Your task to perform on an android device: turn off priority inbox in the gmail app Image 0: 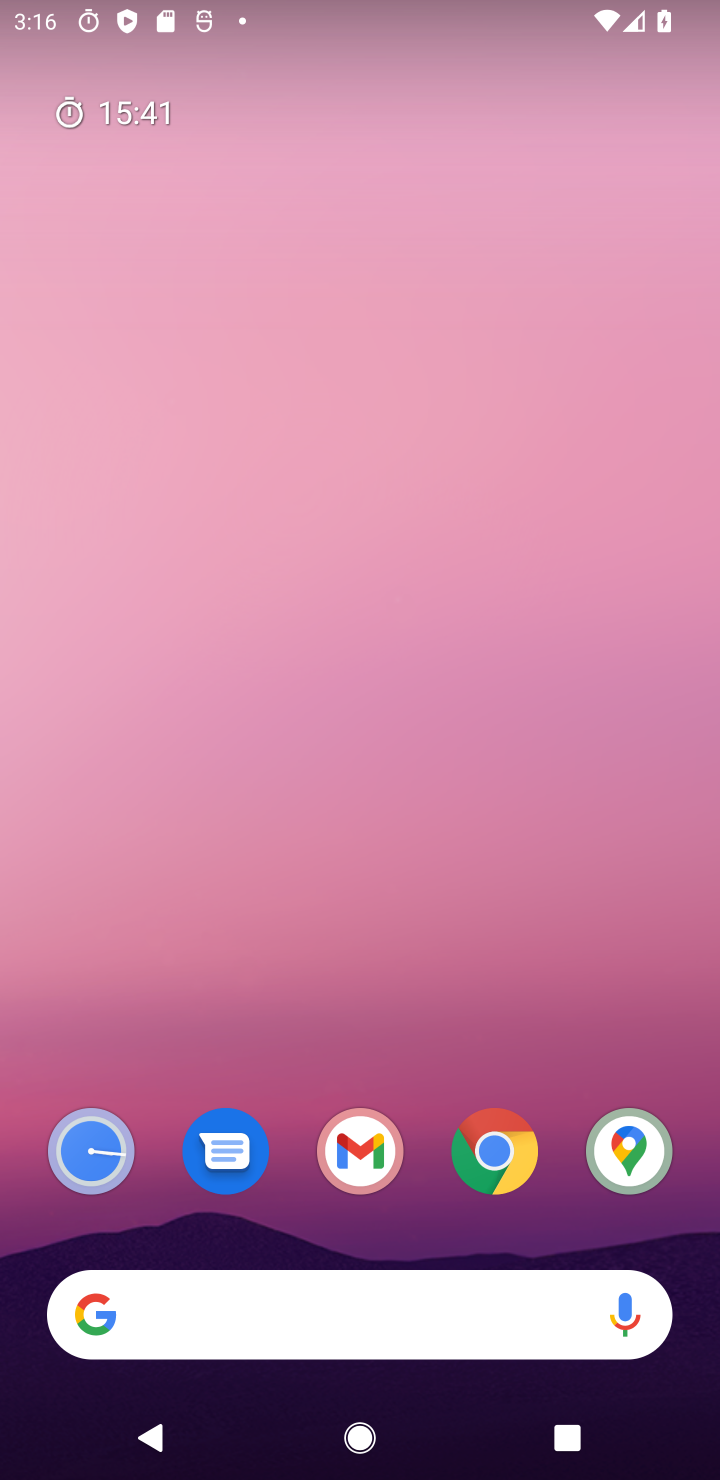
Step 0: press home button
Your task to perform on an android device: turn off priority inbox in the gmail app Image 1: 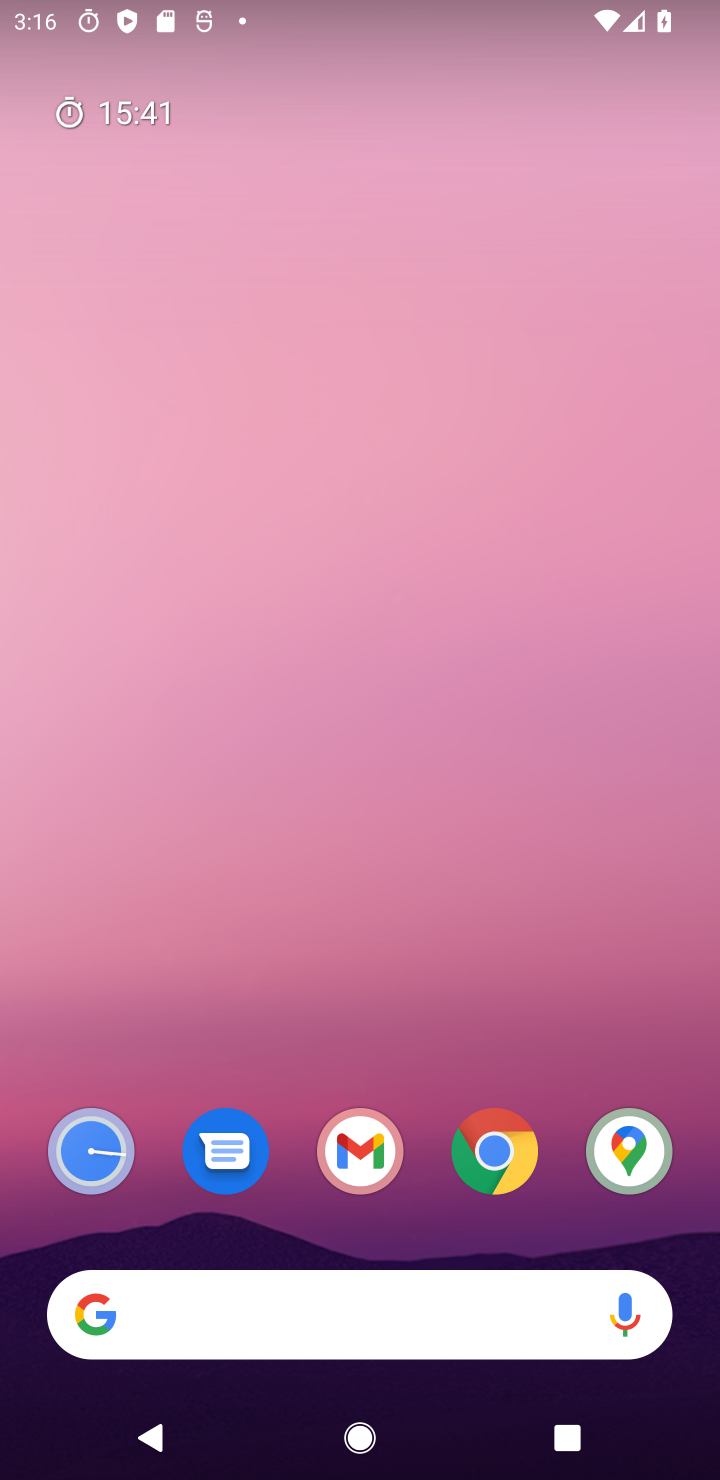
Step 1: press home button
Your task to perform on an android device: turn off priority inbox in the gmail app Image 2: 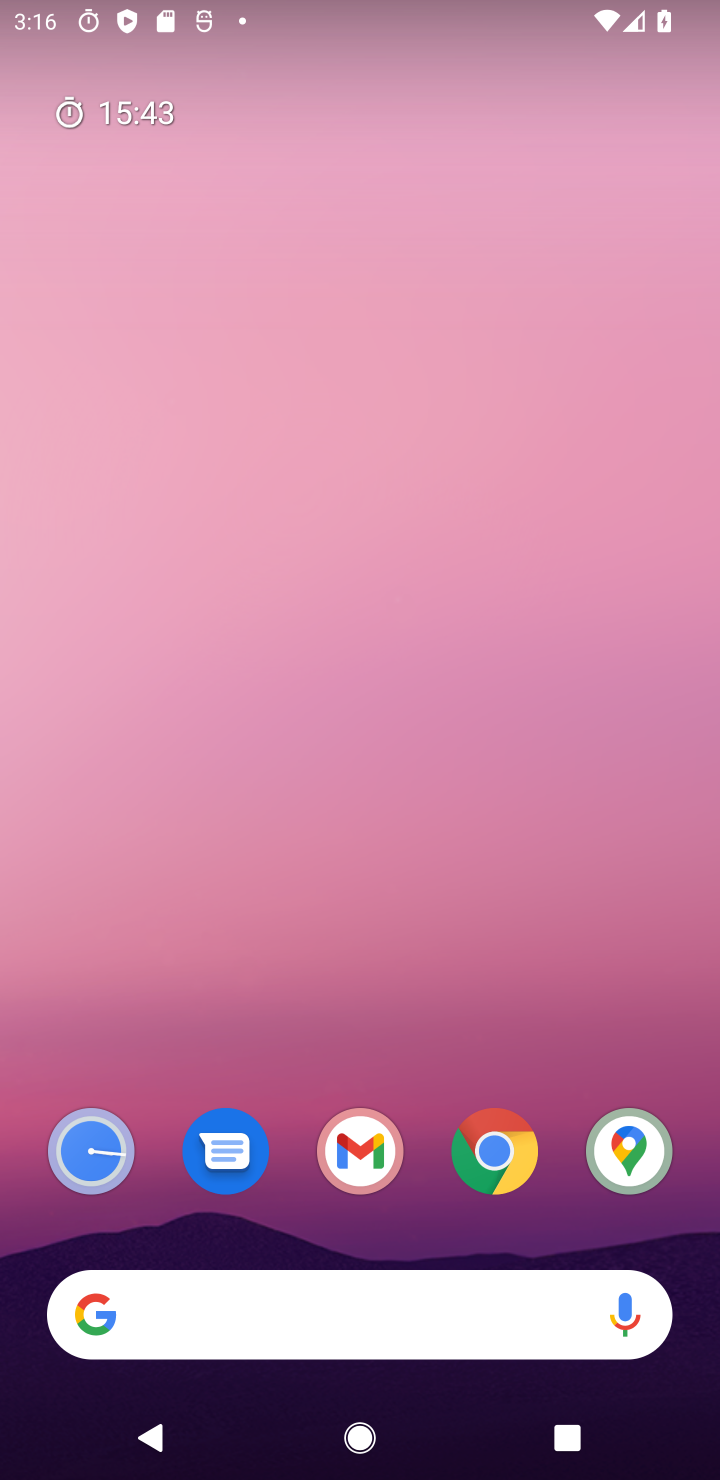
Step 2: drag from (365, 743) to (337, 401)
Your task to perform on an android device: turn off priority inbox in the gmail app Image 3: 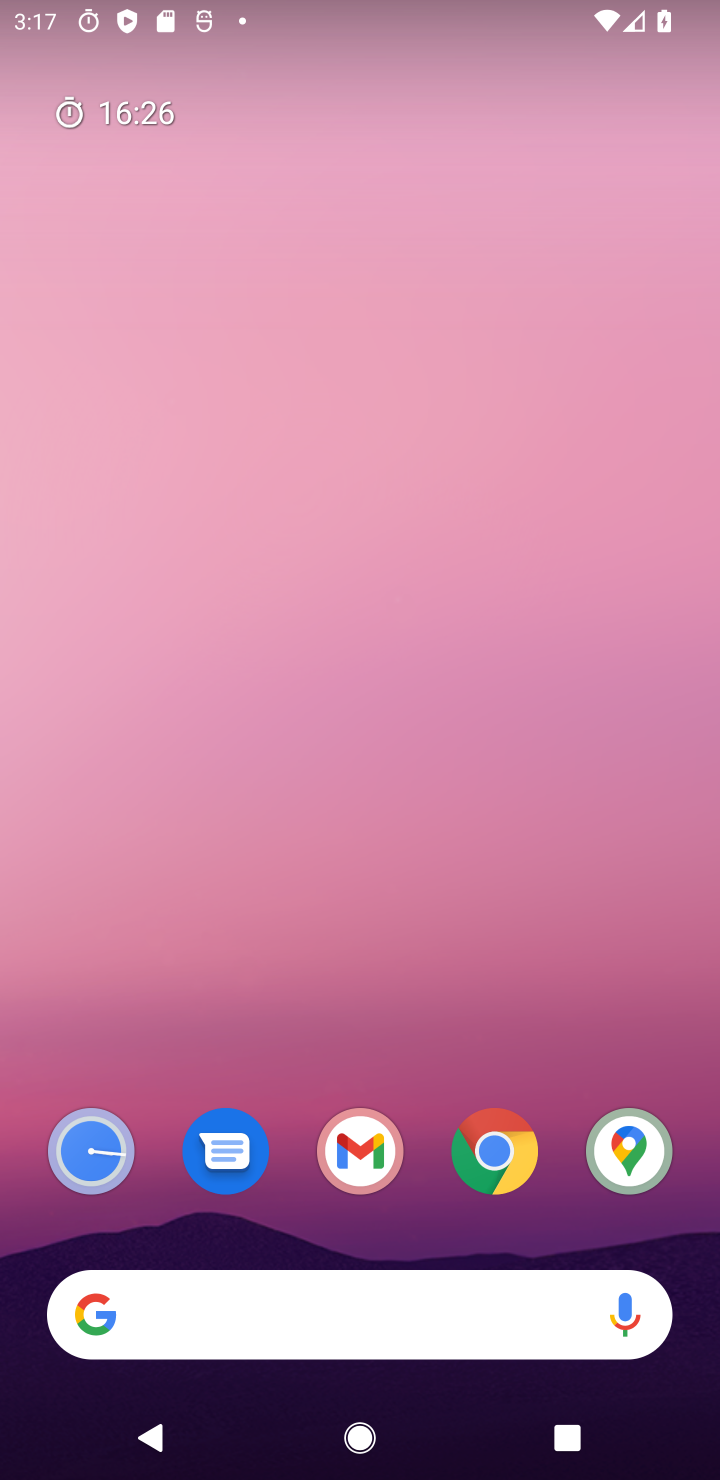
Step 3: drag from (369, 1019) to (561, 44)
Your task to perform on an android device: turn off priority inbox in the gmail app Image 4: 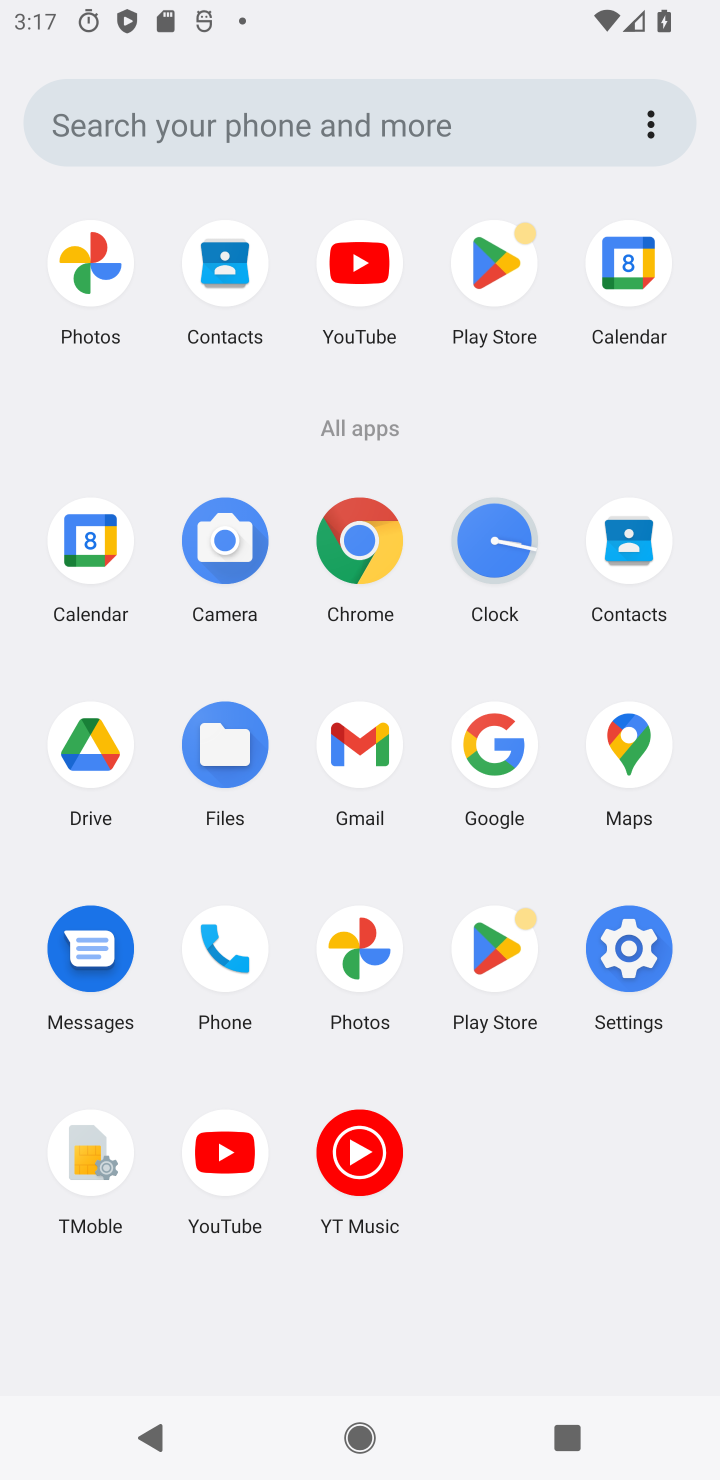
Step 4: click (375, 779)
Your task to perform on an android device: turn off priority inbox in the gmail app Image 5: 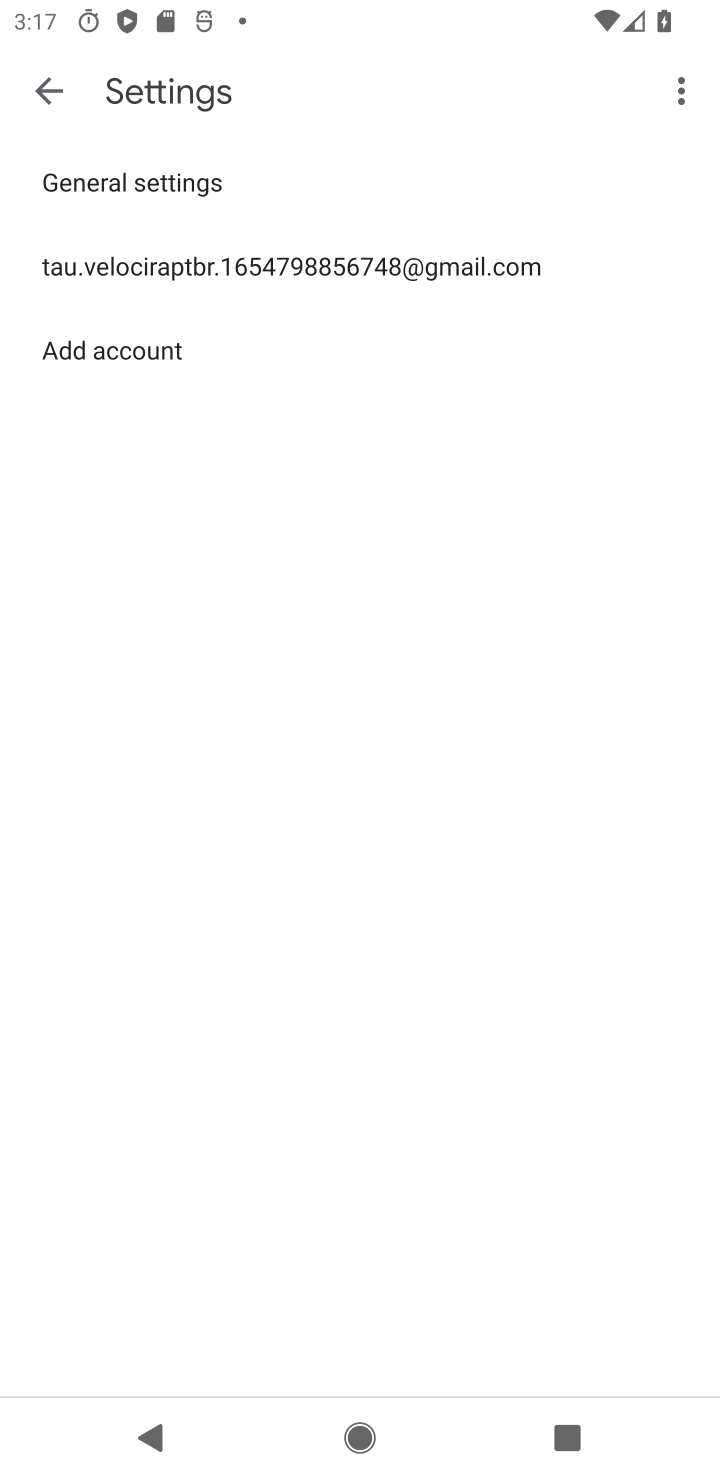
Step 5: click (138, 270)
Your task to perform on an android device: turn off priority inbox in the gmail app Image 6: 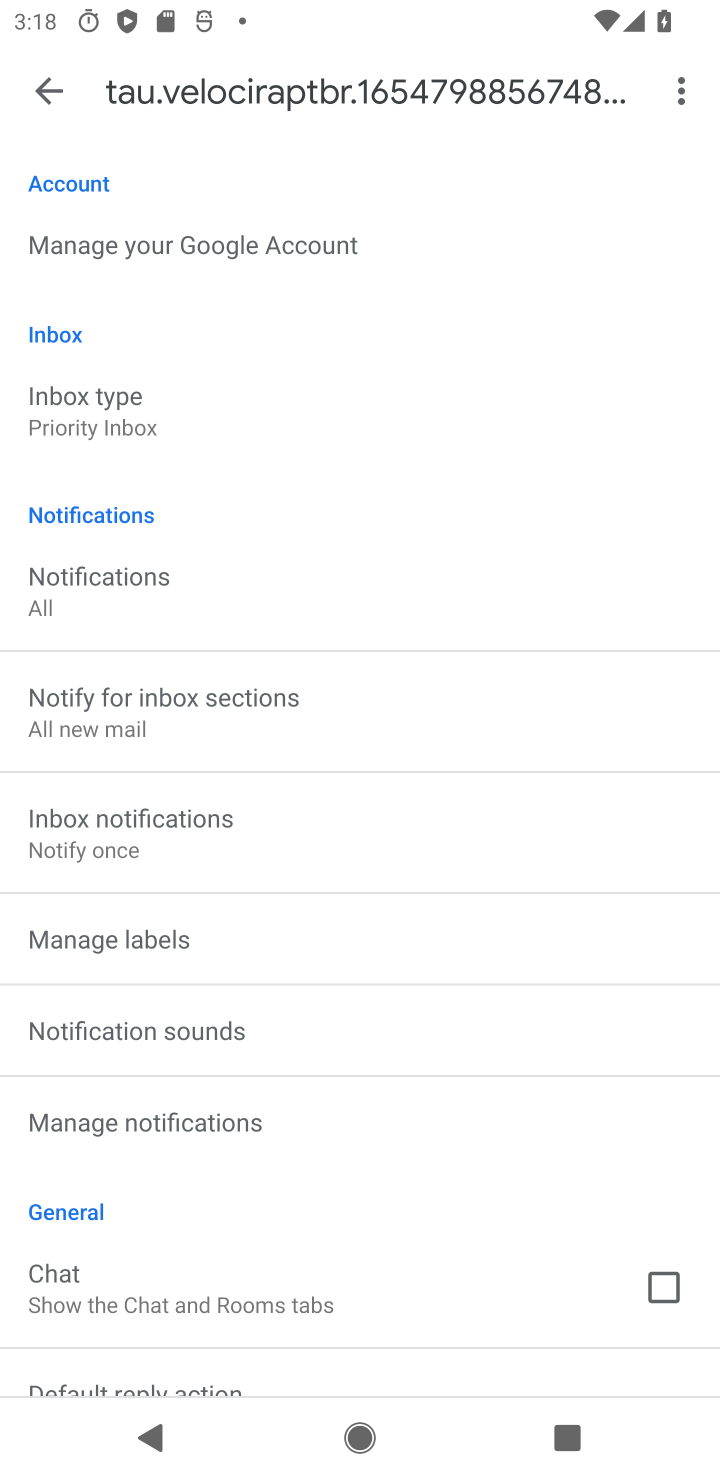
Step 6: click (74, 408)
Your task to perform on an android device: turn off priority inbox in the gmail app Image 7: 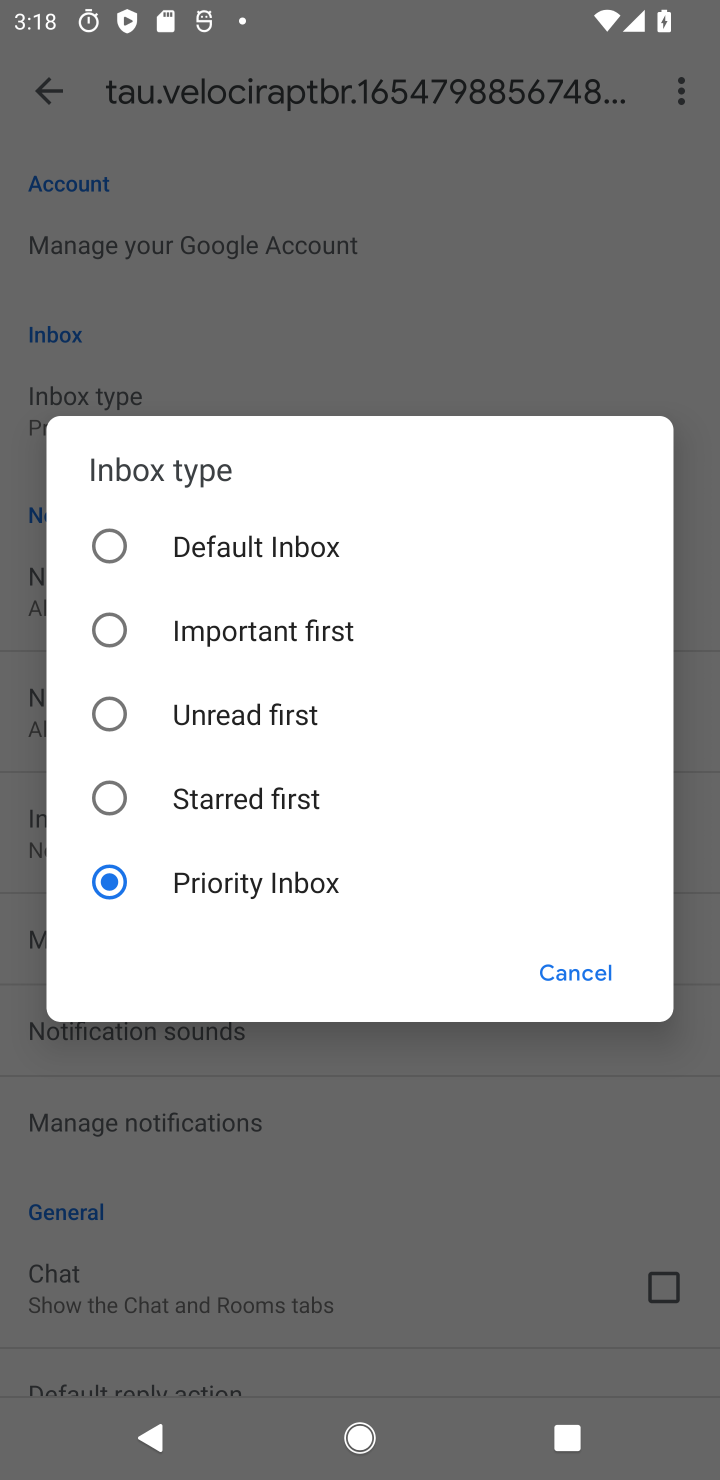
Step 7: click (260, 557)
Your task to perform on an android device: turn off priority inbox in the gmail app Image 8: 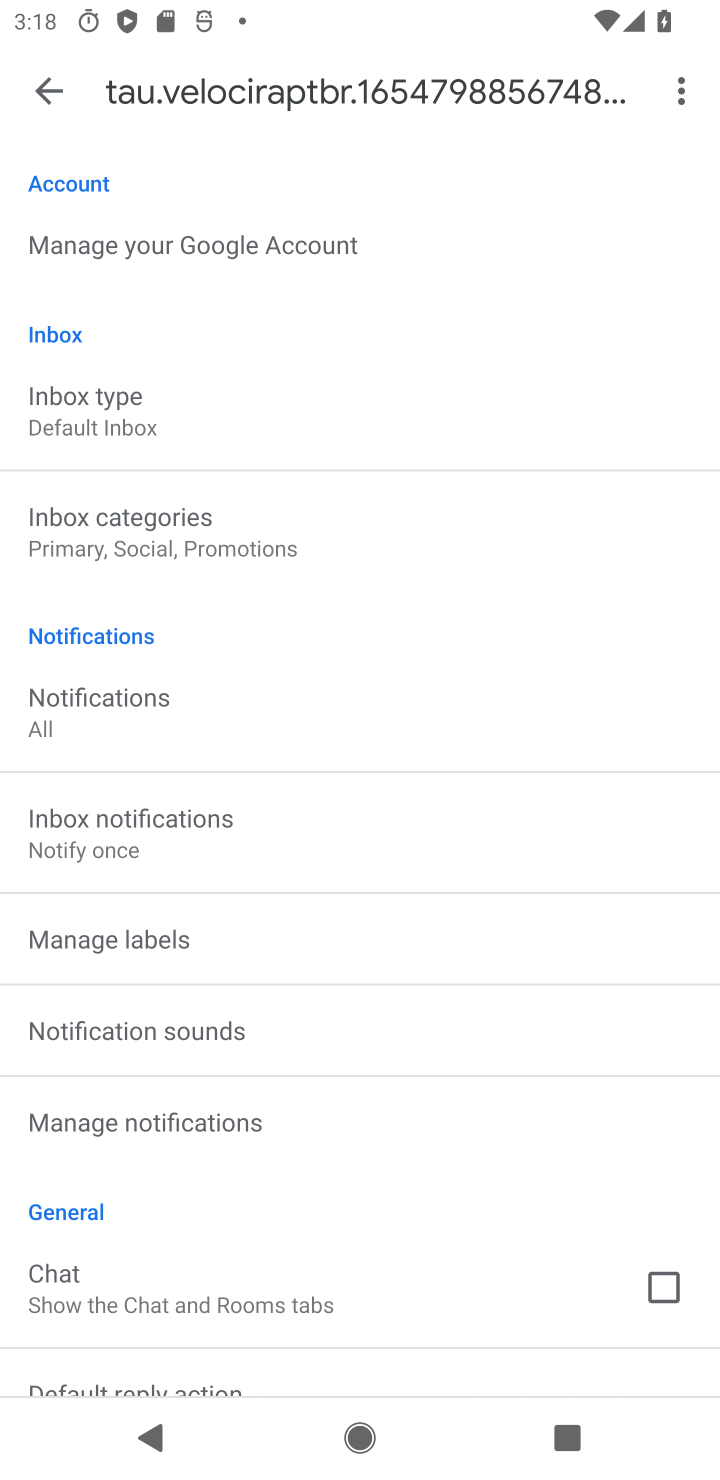
Step 8: task complete